Your task to perform on an android device: Go to battery settings Image 0: 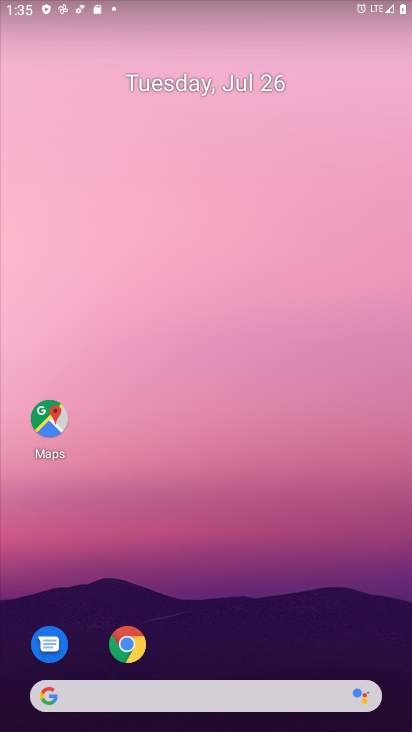
Step 0: drag from (138, 730) to (194, 118)
Your task to perform on an android device: Go to battery settings Image 1: 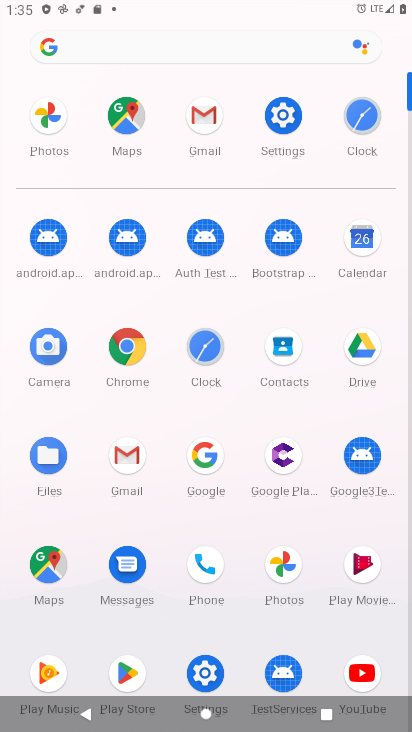
Step 1: click (299, 109)
Your task to perform on an android device: Go to battery settings Image 2: 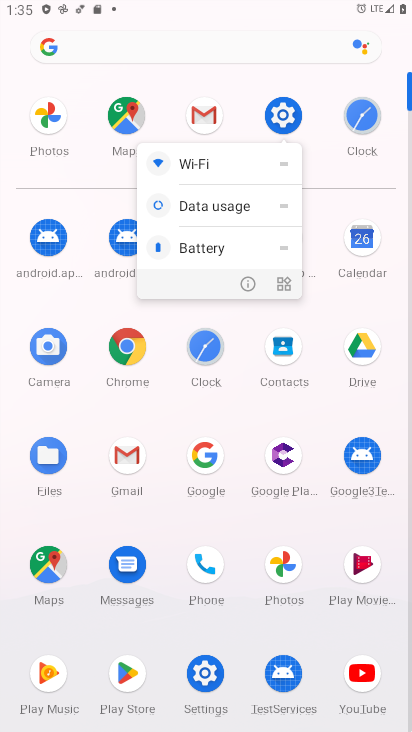
Step 2: click (299, 109)
Your task to perform on an android device: Go to battery settings Image 3: 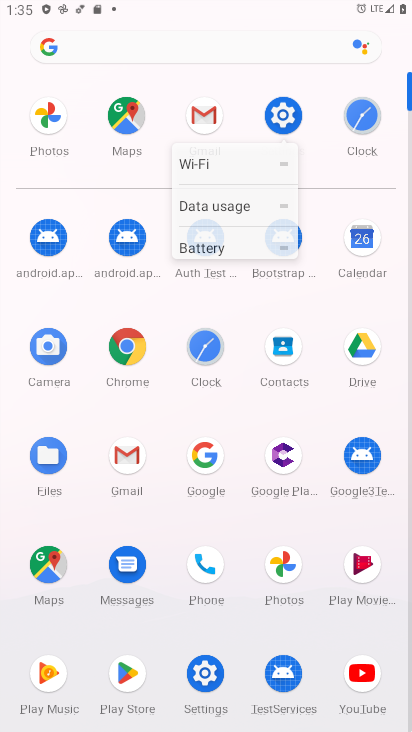
Step 3: click (299, 109)
Your task to perform on an android device: Go to battery settings Image 4: 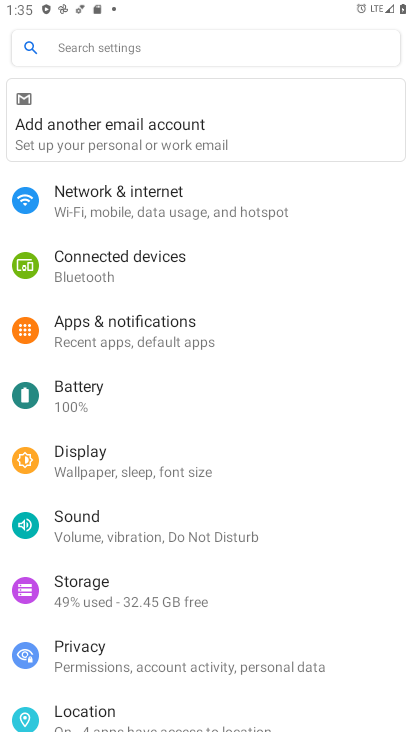
Step 4: click (91, 385)
Your task to perform on an android device: Go to battery settings Image 5: 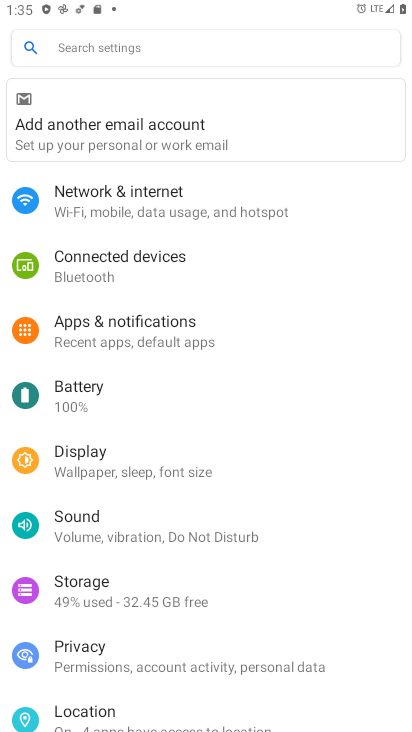
Step 5: click (91, 385)
Your task to perform on an android device: Go to battery settings Image 6: 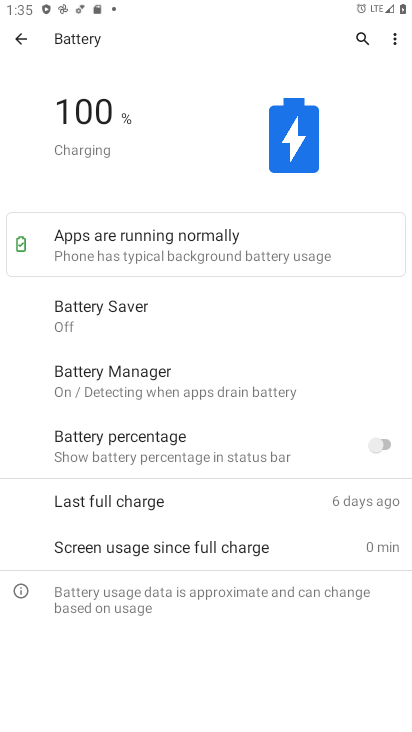
Step 6: task complete